Your task to perform on an android device: Go to ESPN.com Image 0: 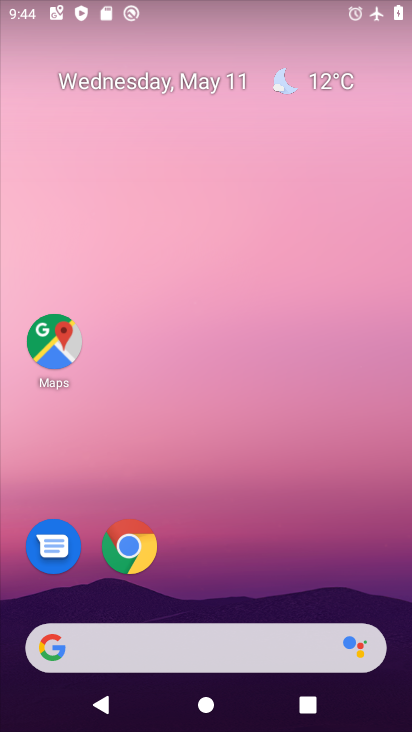
Step 0: click (130, 543)
Your task to perform on an android device: Go to ESPN.com Image 1: 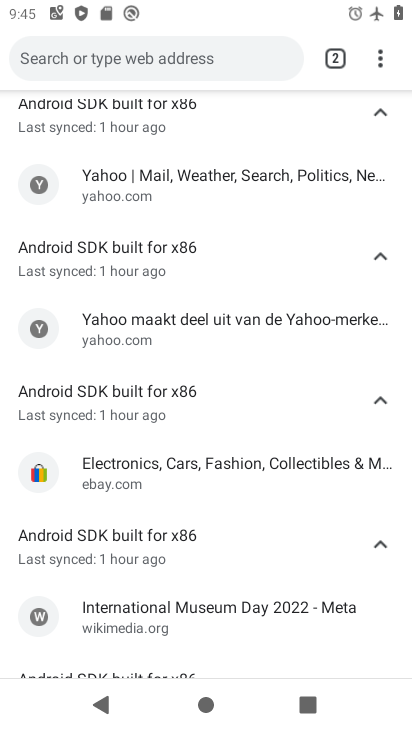
Step 1: click (66, 50)
Your task to perform on an android device: Go to ESPN.com Image 2: 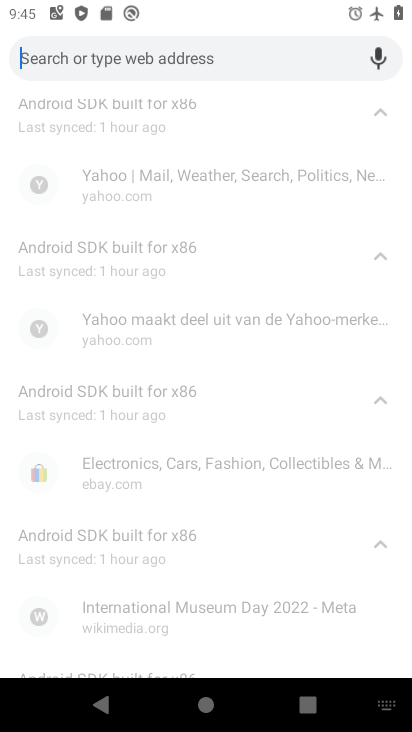
Step 2: type "espn.com"
Your task to perform on an android device: Go to ESPN.com Image 3: 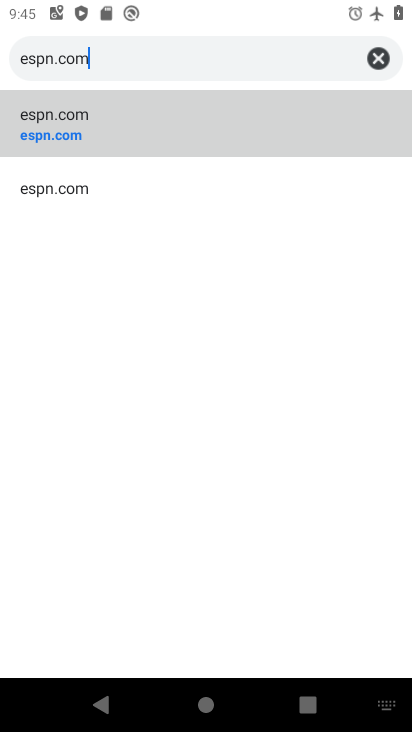
Step 3: click (46, 122)
Your task to perform on an android device: Go to ESPN.com Image 4: 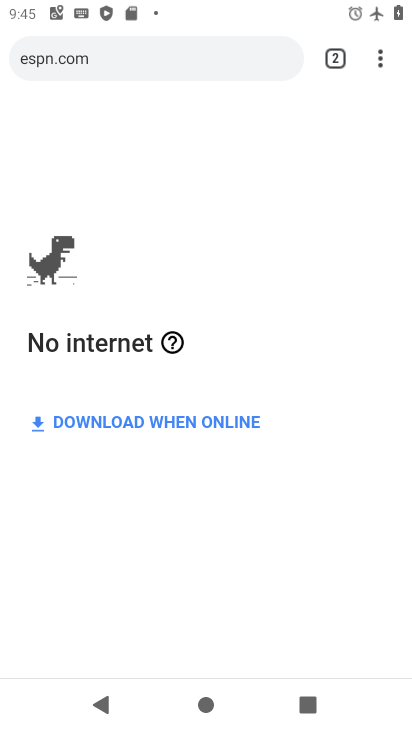
Step 4: task complete